Your task to perform on an android device: check out phone information Image 0: 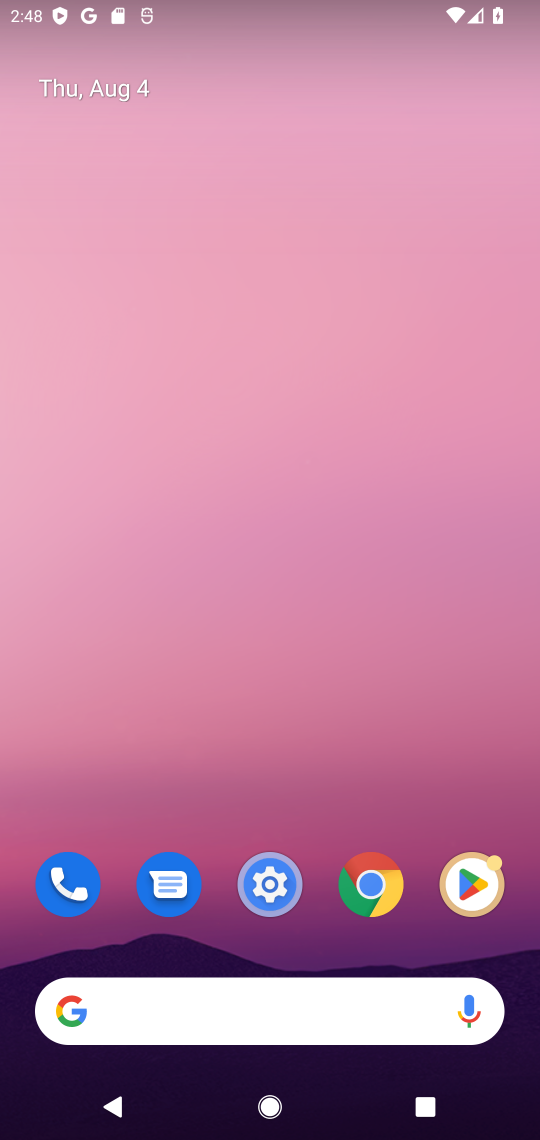
Step 0: drag from (241, 924) to (223, 221)
Your task to perform on an android device: check out phone information Image 1: 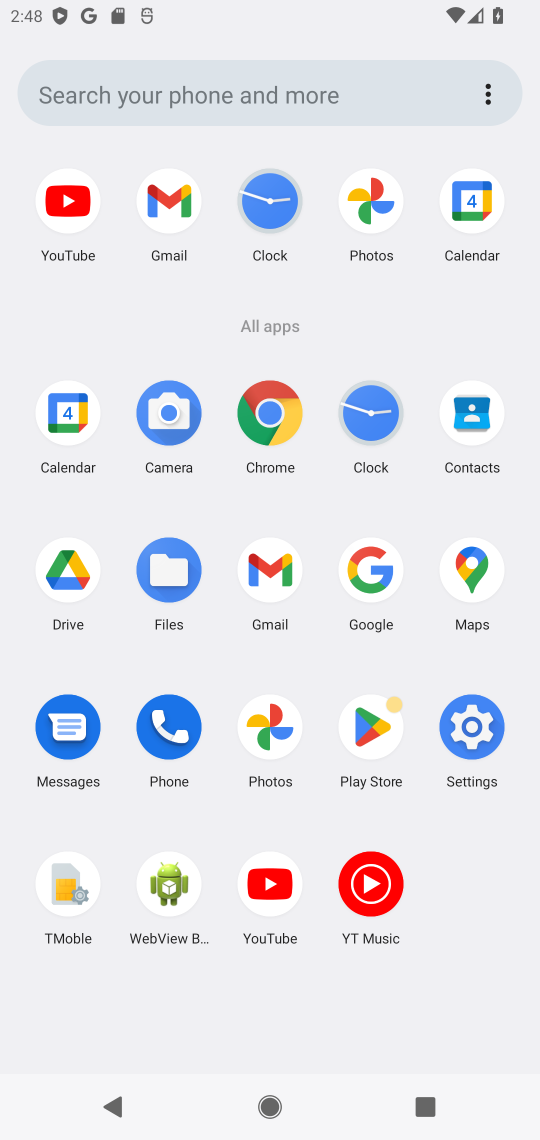
Step 1: click (476, 739)
Your task to perform on an android device: check out phone information Image 2: 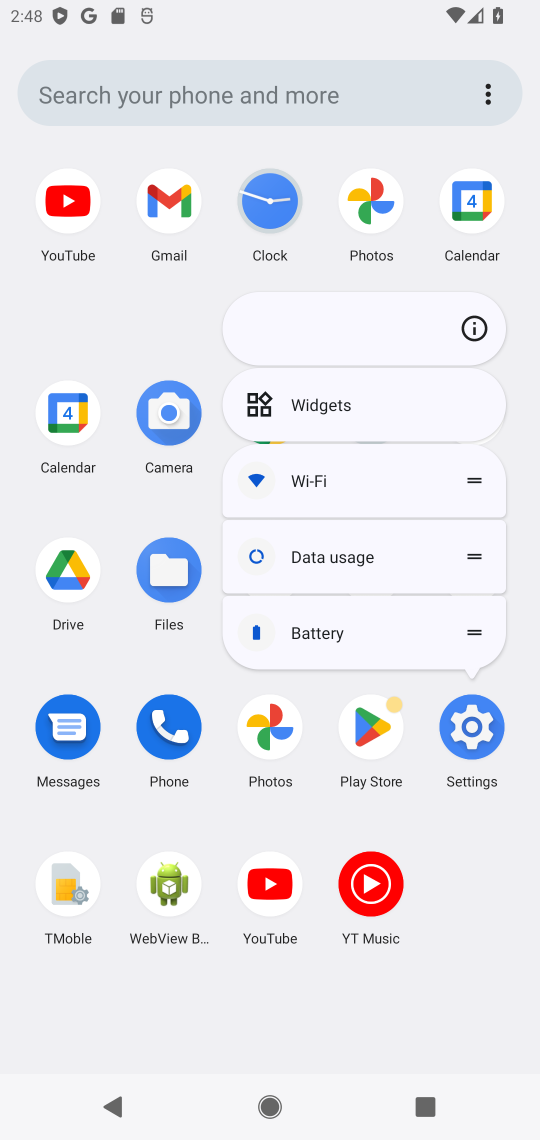
Step 2: click (486, 335)
Your task to perform on an android device: check out phone information Image 3: 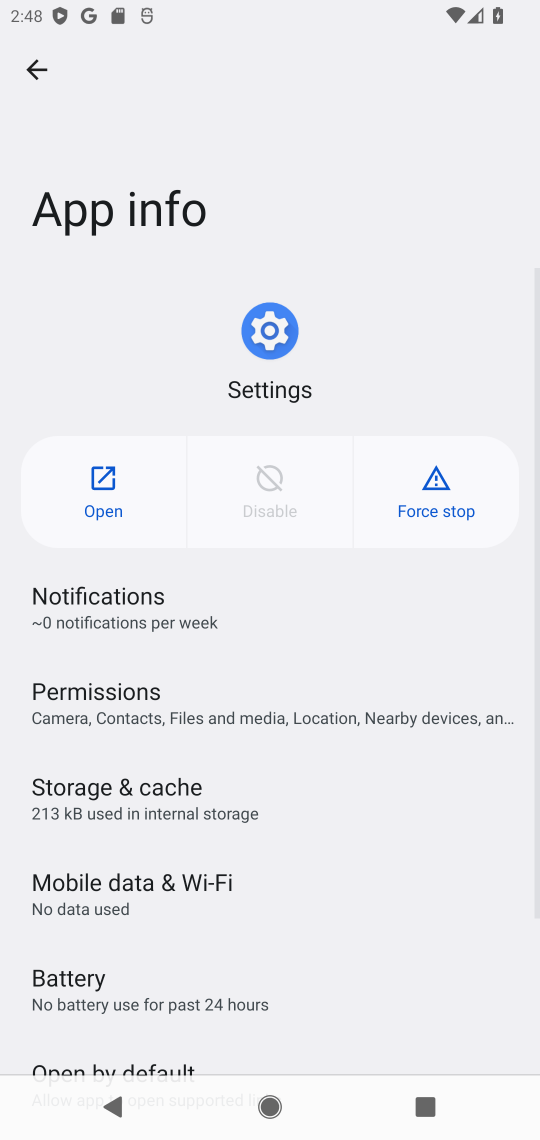
Step 3: click (100, 486)
Your task to perform on an android device: check out phone information Image 4: 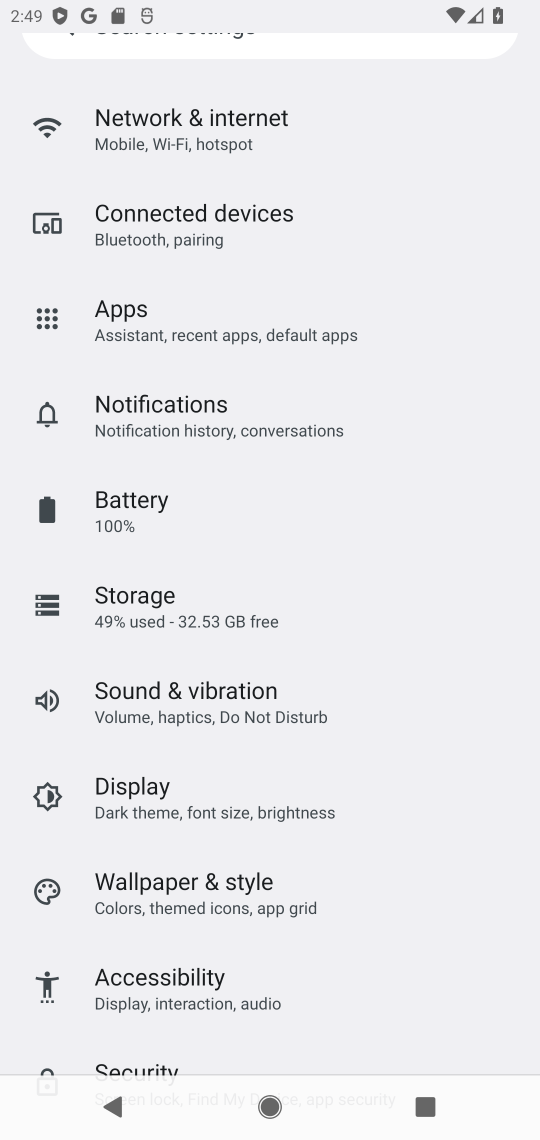
Step 4: drag from (178, 959) to (386, 303)
Your task to perform on an android device: check out phone information Image 5: 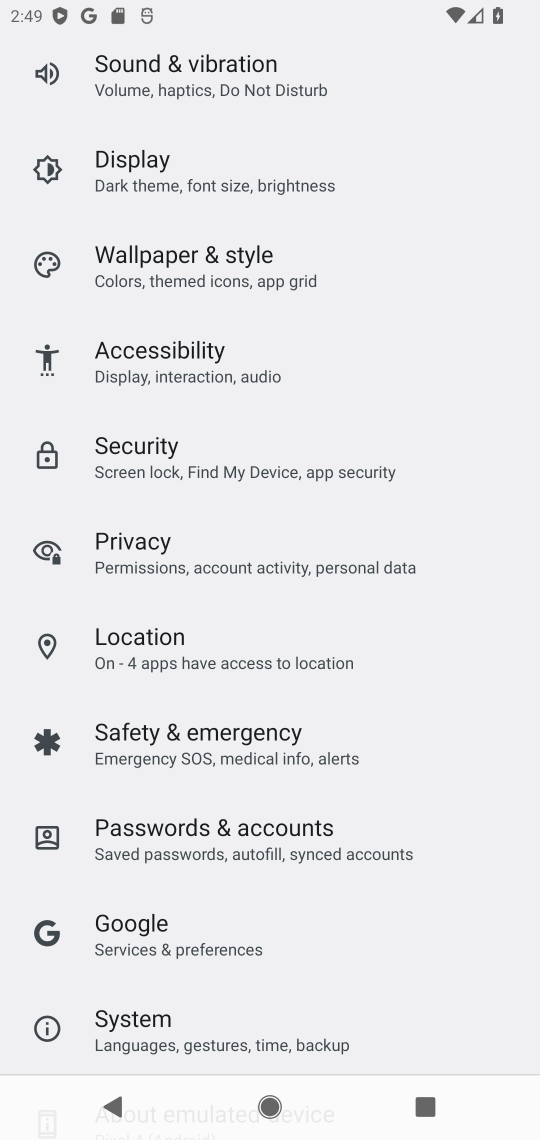
Step 5: drag from (193, 1025) to (405, 390)
Your task to perform on an android device: check out phone information Image 6: 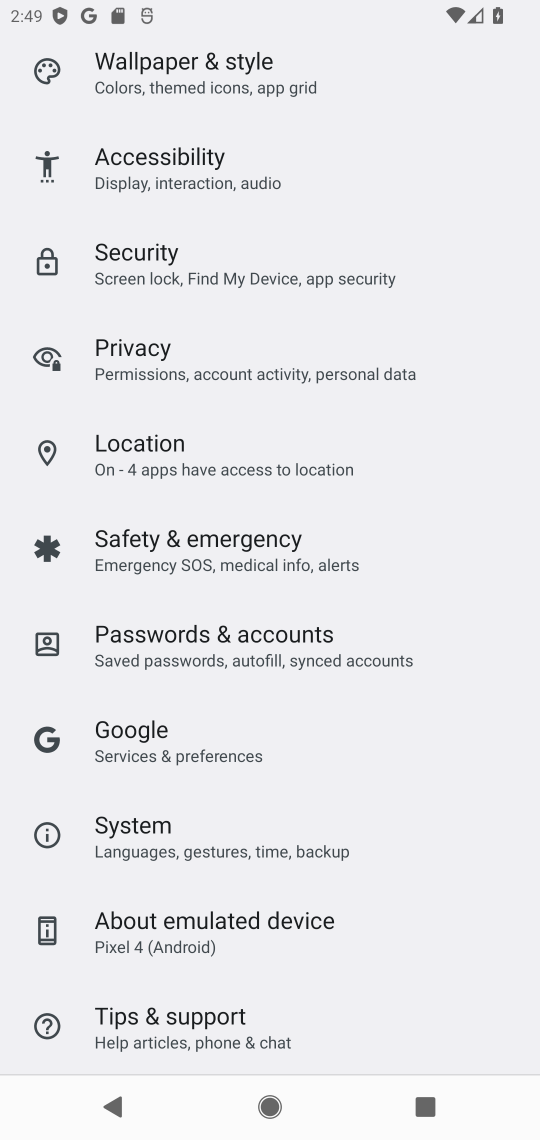
Step 6: drag from (362, 509) to (532, 168)
Your task to perform on an android device: check out phone information Image 7: 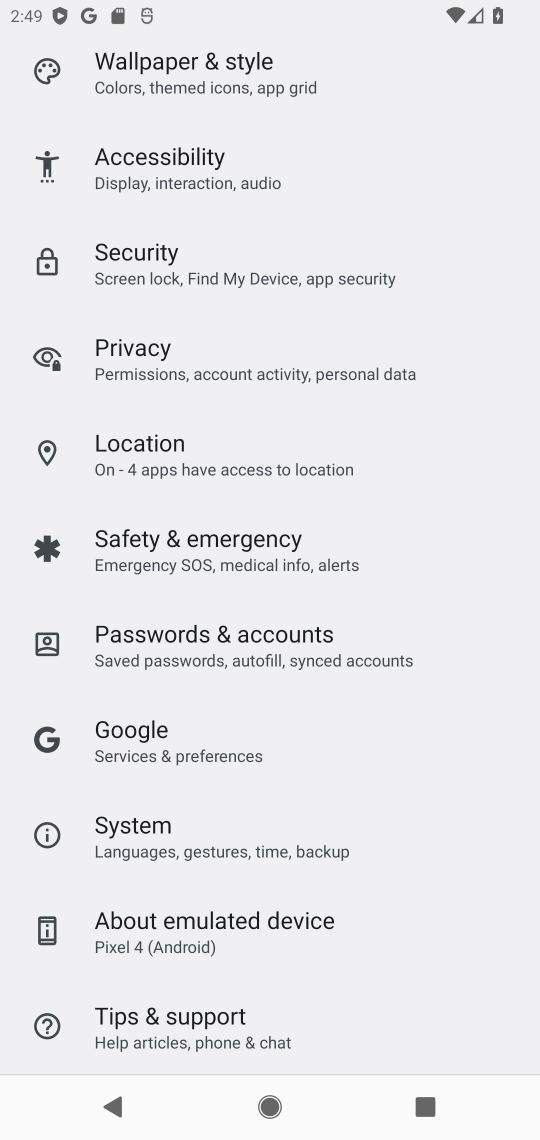
Step 7: click (200, 950)
Your task to perform on an android device: check out phone information Image 8: 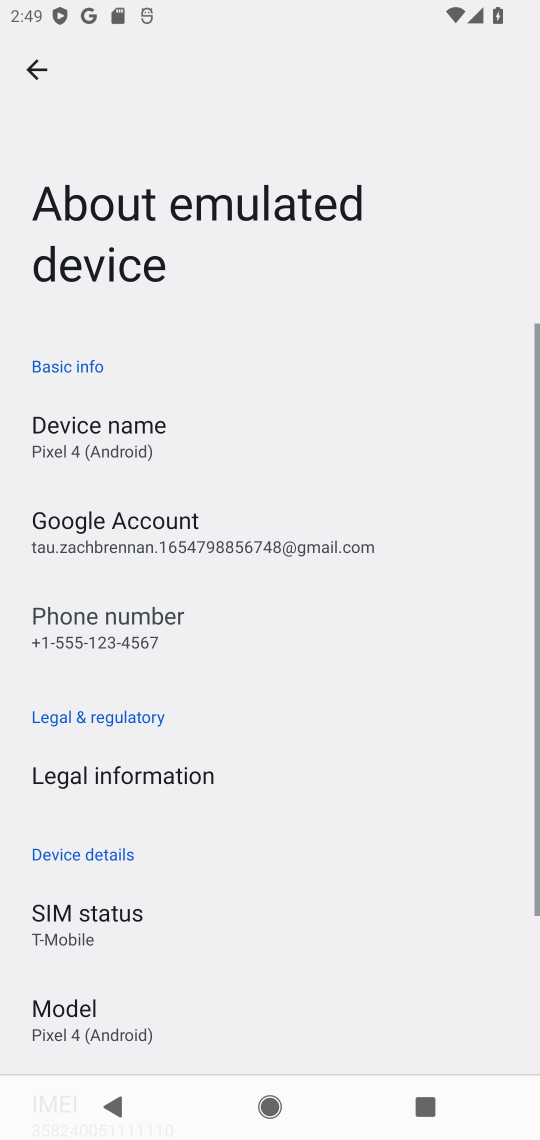
Step 8: task complete